Your task to perform on an android device: manage bookmarks in the chrome app Image 0: 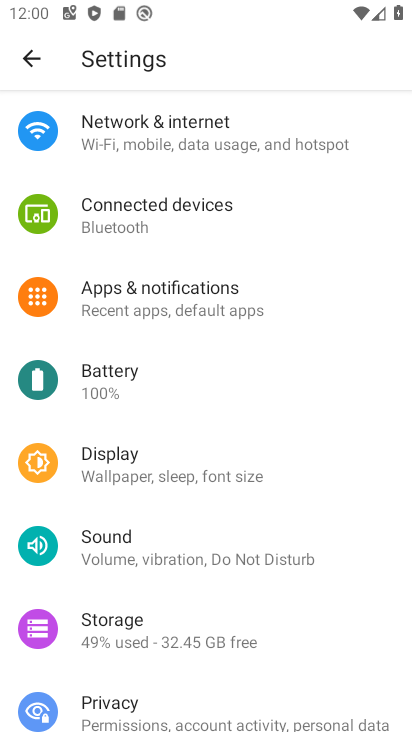
Step 0: press home button
Your task to perform on an android device: manage bookmarks in the chrome app Image 1: 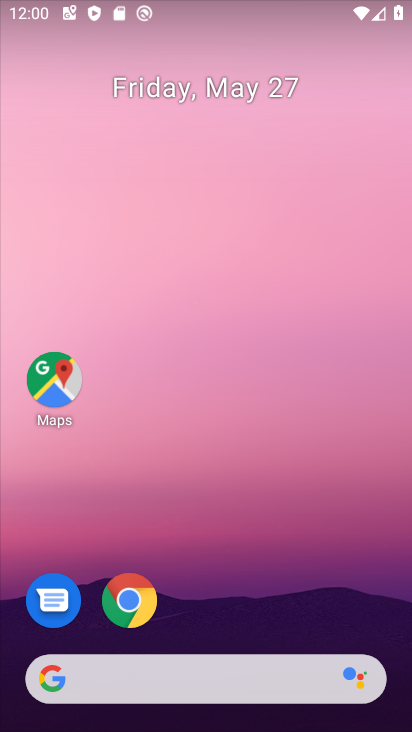
Step 1: click (132, 591)
Your task to perform on an android device: manage bookmarks in the chrome app Image 2: 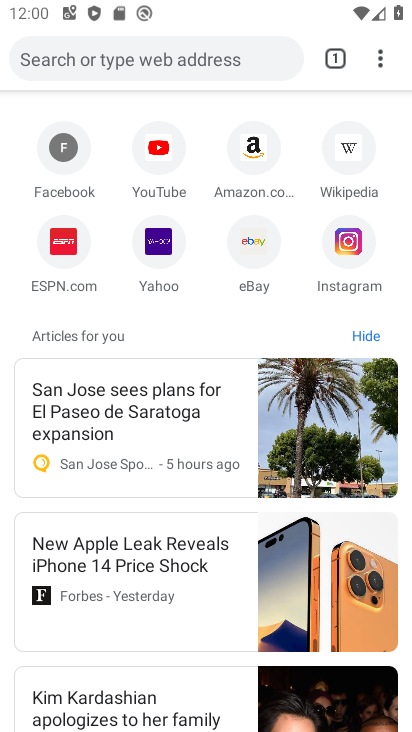
Step 2: click (391, 53)
Your task to perform on an android device: manage bookmarks in the chrome app Image 3: 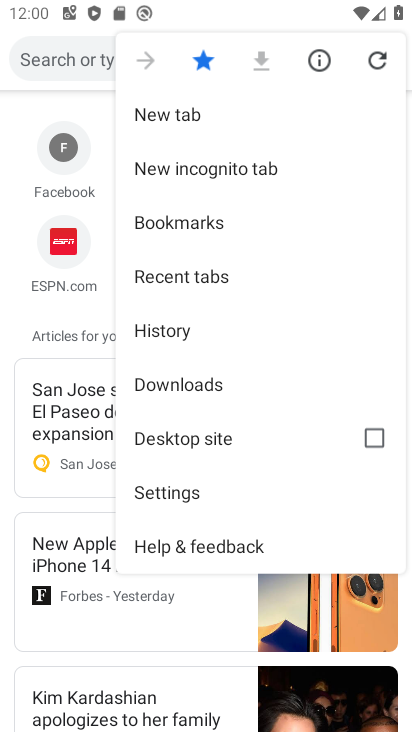
Step 3: click (197, 239)
Your task to perform on an android device: manage bookmarks in the chrome app Image 4: 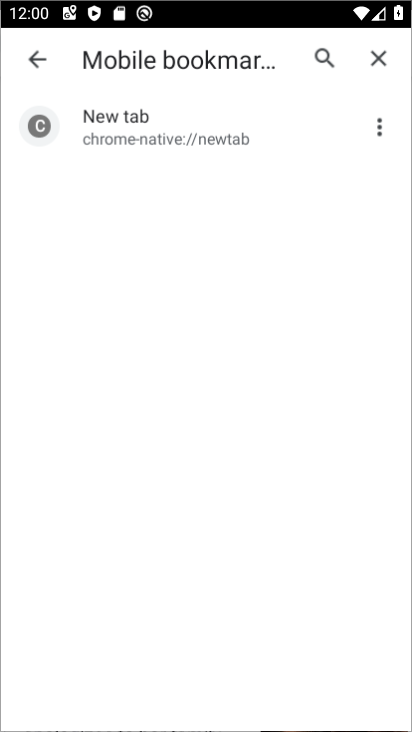
Step 4: click (197, 239)
Your task to perform on an android device: manage bookmarks in the chrome app Image 5: 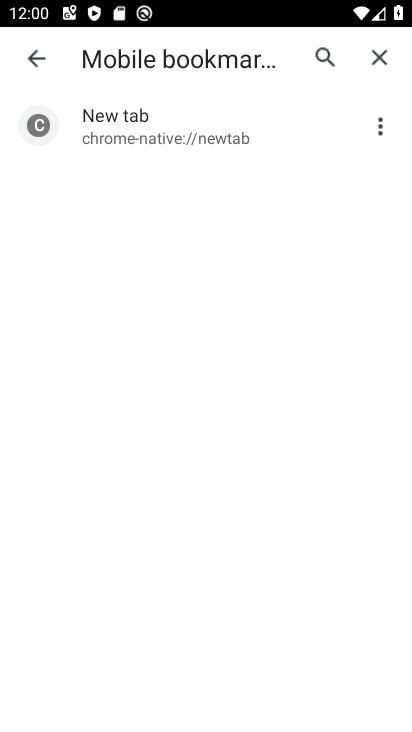
Step 5: click (383, 128)
Your task to perform on an android device: manage bookmarks in the chrome app Image 6: 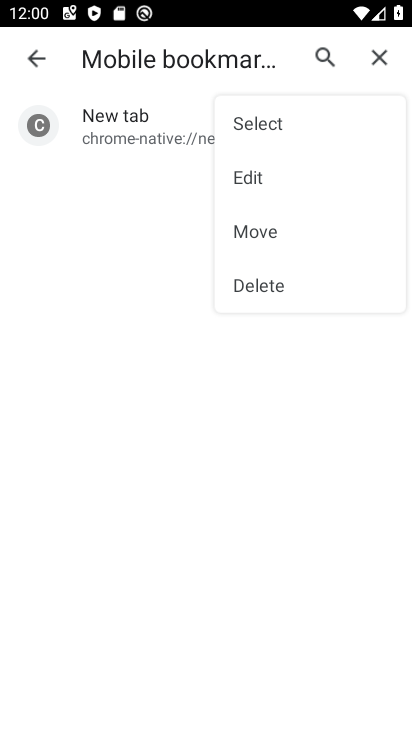
Step 6: click (249, 299)
Your task to perform on an android device: manage bookmarks in the chrome app Image 7: 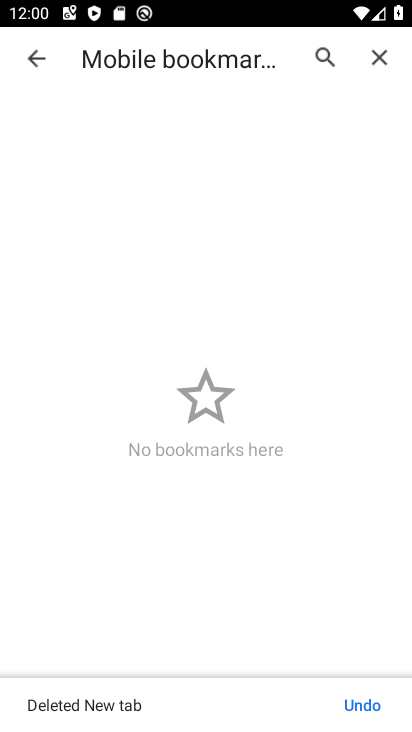
Step 7: task complete